Your task to perform on an android device: Go to Wikipedia Image 0: 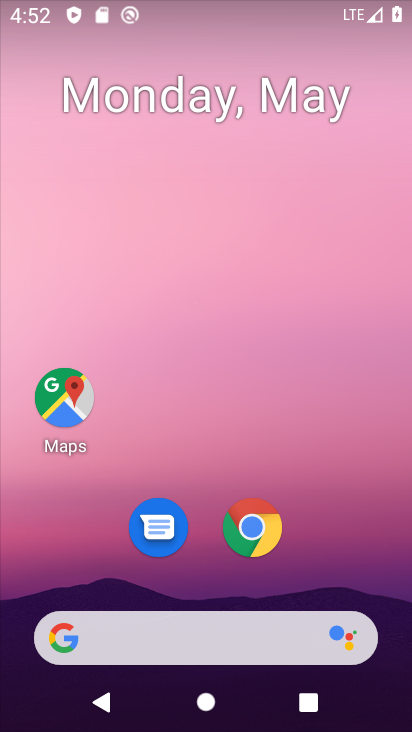
Step 0: click (256, 525)
Your task to perform on an android device: Go to Wikipedia Image 1: 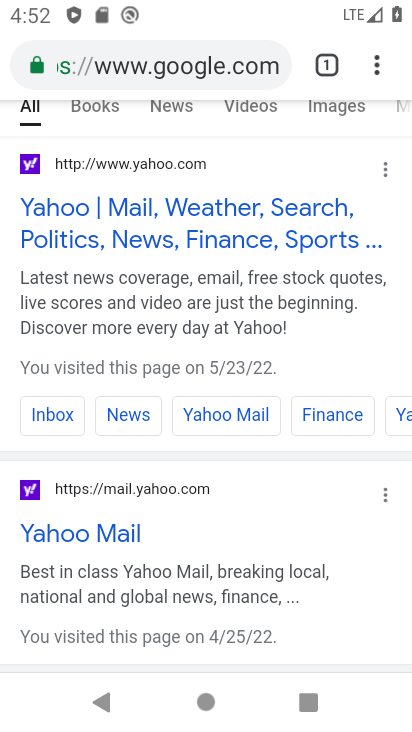
Step 1: click (285, 61)
Your task to perform on an android device: Go to Wikipedia Image 2: 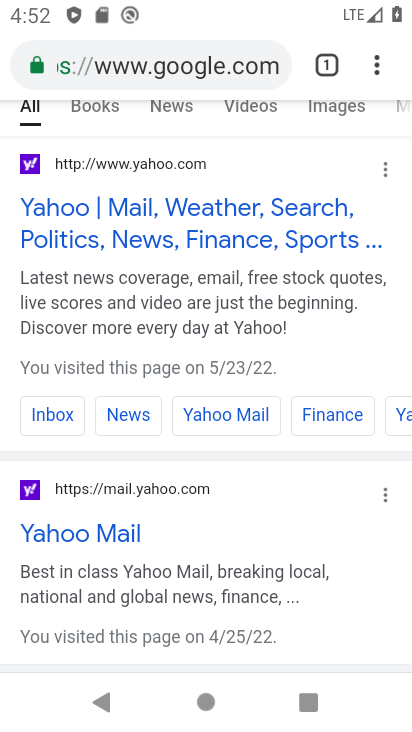
Step 2: click (279, 67)
Your task to perform on an android device: Go to Wikipedia Image 3: 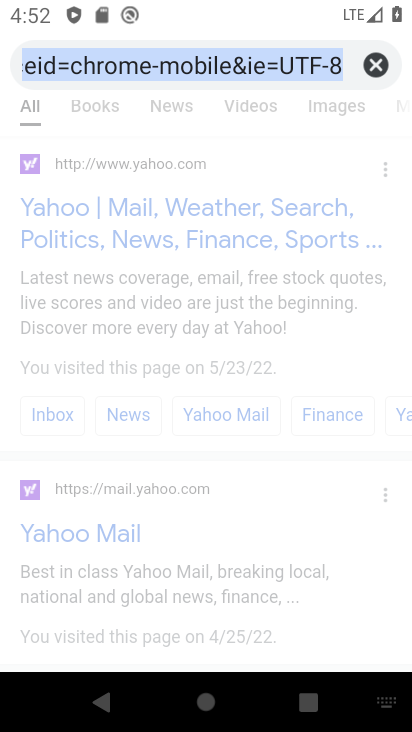
Step 3: click (365, 61)
Your task to perform on an android device: Go to Wikipedia Image 4: 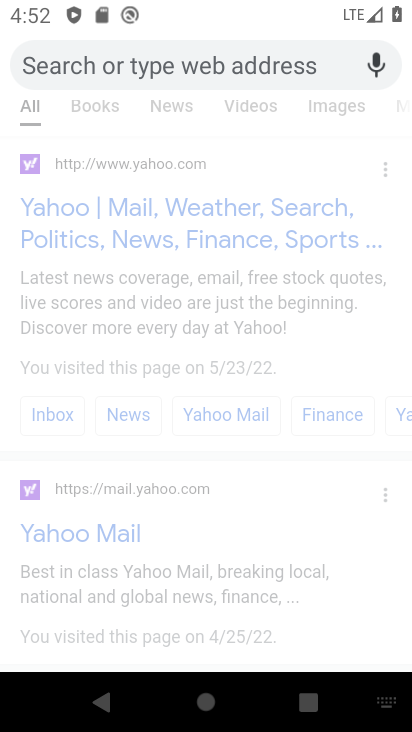
Step 4: type "Wikipedia"
Your task to perform on an android device: Go to Wikipedia Image 5: 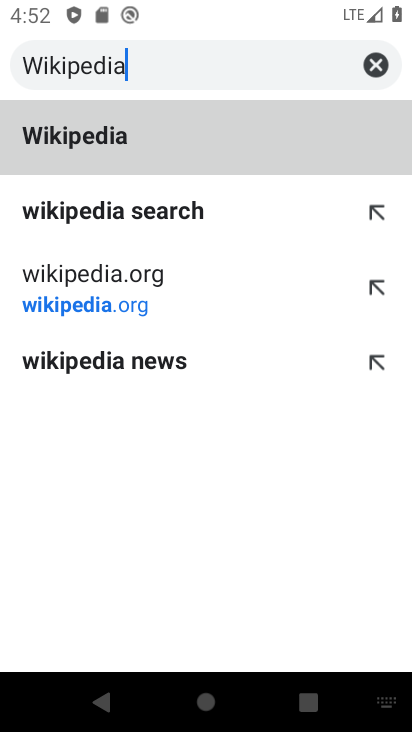
Step 5: click (54, 138)
Your task to perform on an android device: Go to Wikipedia Image 6: 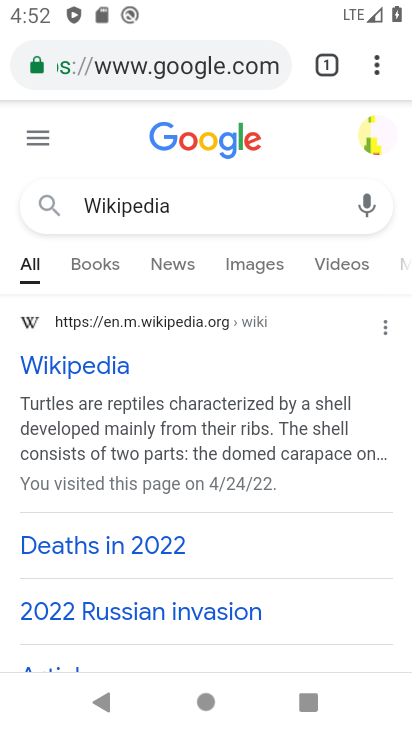
Step 6: task complete